Your task to perform on an android device: Open Chrome and go to settings Image 0: 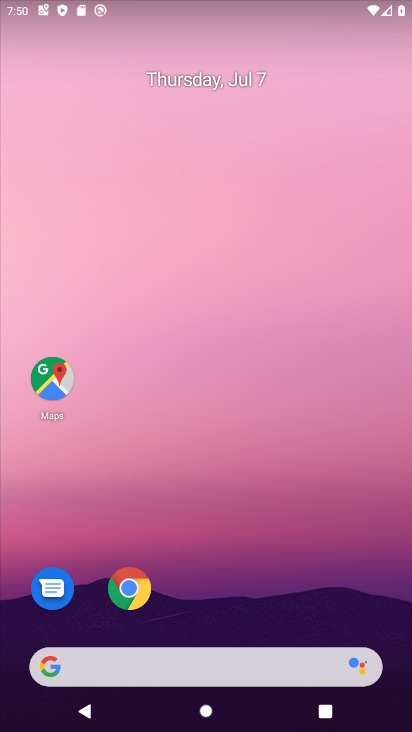
Step 0: drag from (194, 605) to (196, 224)
Your task to perform on an android device: Open Chrome and go to settings Image 1: 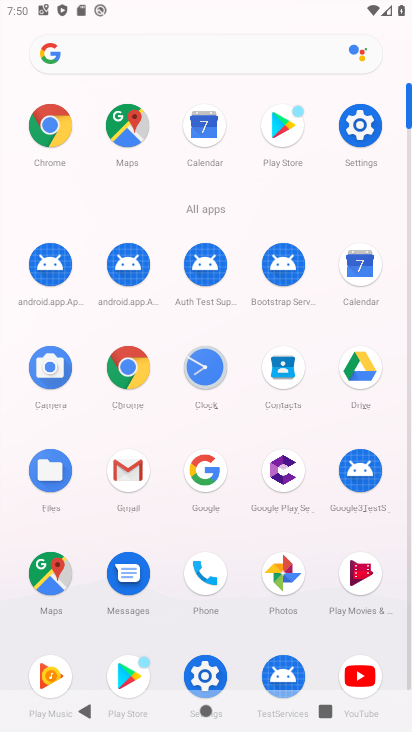
Step 1: click (360, 121)
Your task to perform on an android device: Open Chrome and go to settings Image 2: 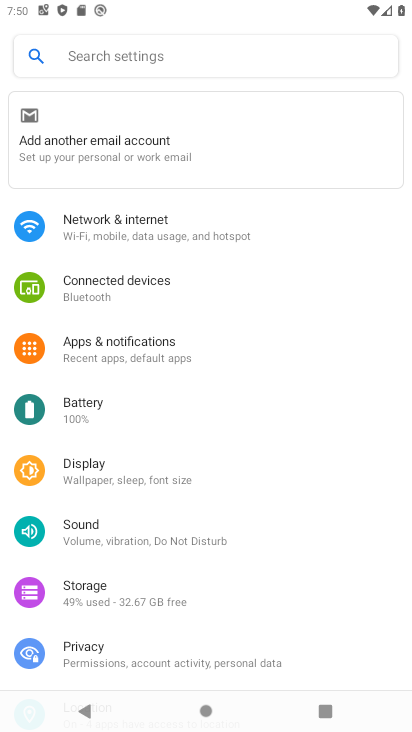
Step 2: drag from (190, 492) to (199, 213)
Your task to perform on an android device: Open Chrome and go to settings Image 3: 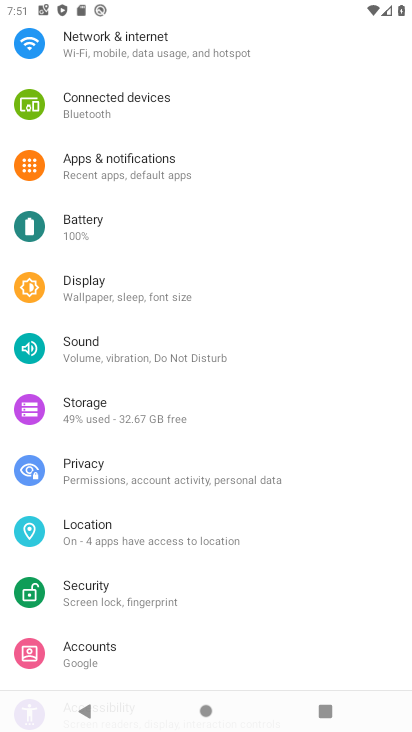
Step 3: drag from (249, 297) to (296, 134)
Your task to perform on an android device: Open Chrome and go to settings Image 4: 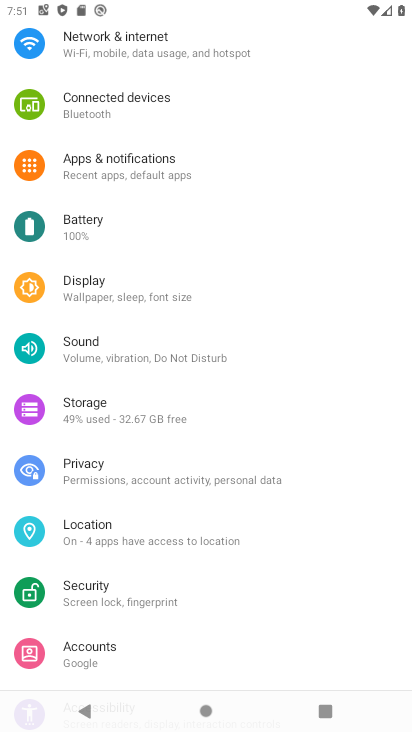
Step 4: drag from (266, 472) to (266, 180)
Your task to perform on an android device: Open Chrome and go to settings Image 5: 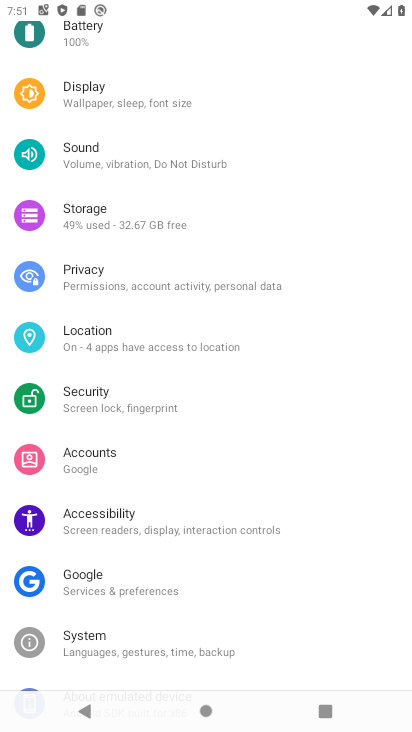
Step 5: press home button
Your task to perform on an android device: Open Chrome and go to settings Image 6: 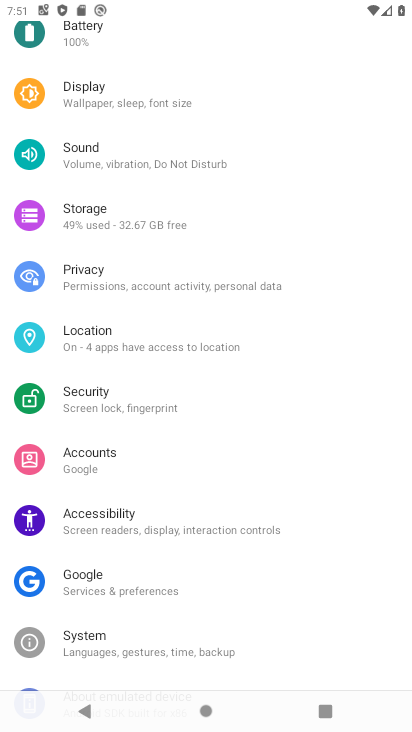
Step 6: press home button
Your task to perform on an android device: Open Chrome and go to settings Image 7: 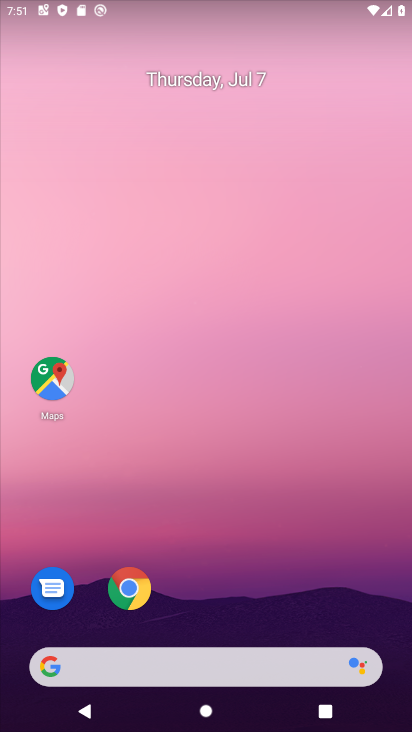
Step 7: drag from (123, 605) to (187, 362)
Your task to perform on an android device: Open Chrome and go to settings Image 8: 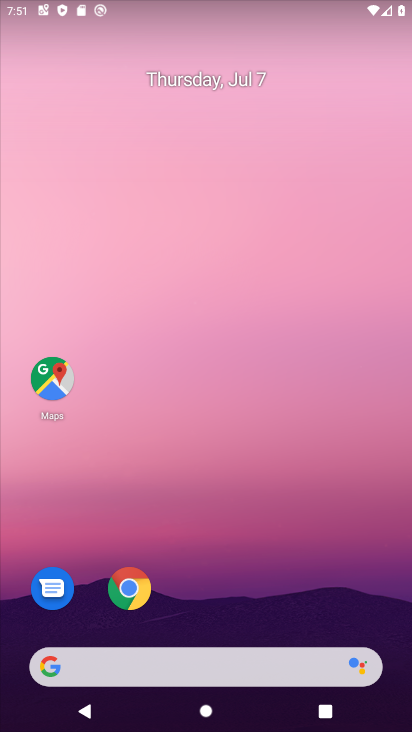
Step 8: drag from (202, 545) to (176, 215)
Your task to perform on an android device: Open Chrome and go to settings Image 9: 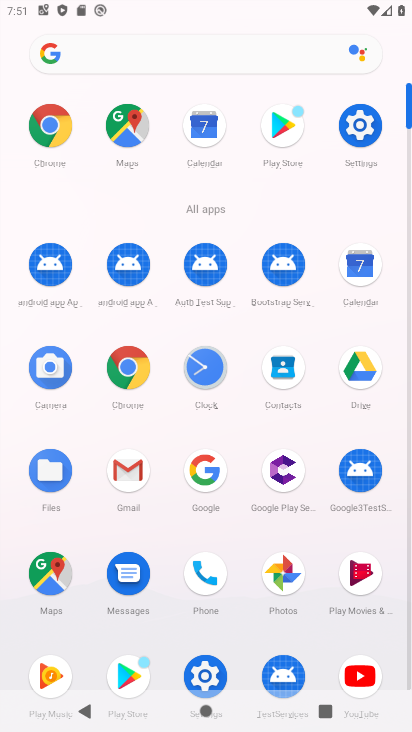
Step 9: click (50, 118)
Your task to perform on an android device: Open Chrome and go to settings Image 10: 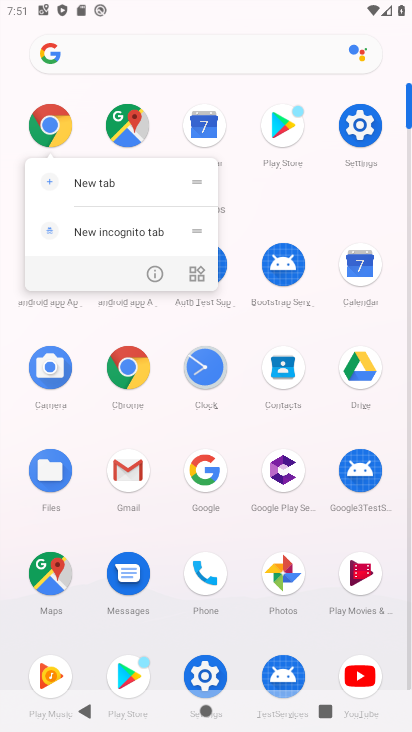
Step 10: click (151, 279)
Your task to perform on an android device: Open Chrome and go to settings Image 11: 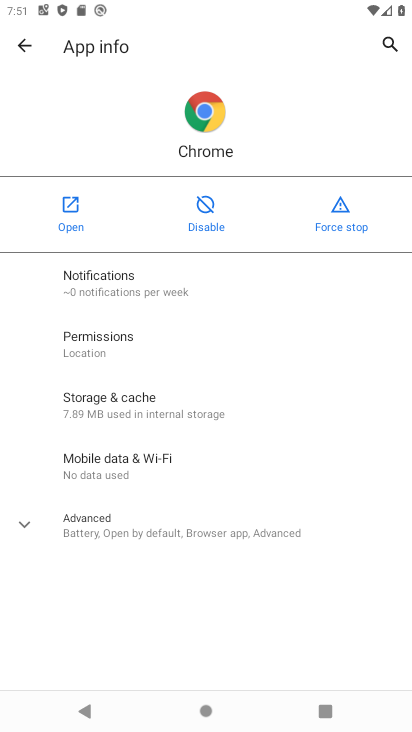
Step 11: click (71, 221)
Your task to perform on an android device: Open Chrome and go to settings Image 12: 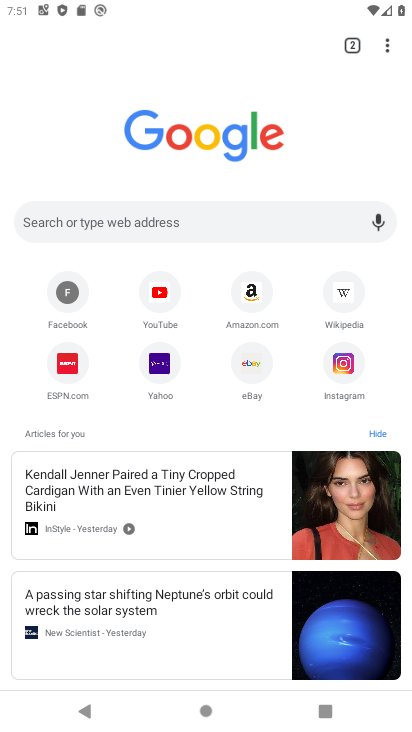
Step 12: drag from (179, 578) to (246, 361)
Your task to perform on an android device: Open Chrome and go to settings Image 13: 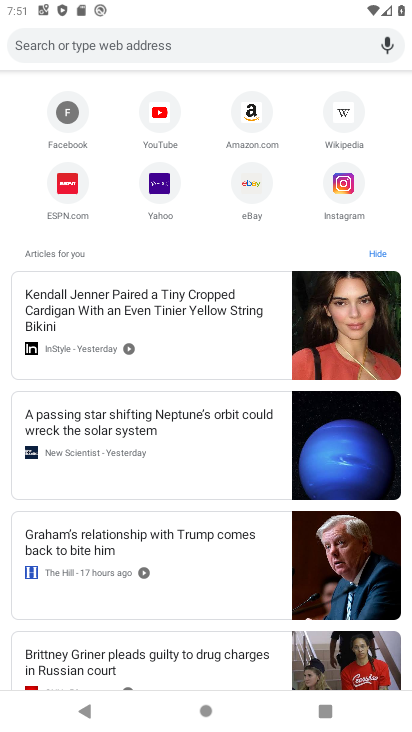
Step 13: drag from (233, 280) to (245, 724)
Your task to perform on an android device: Open Chrome and go to settings Image 14: 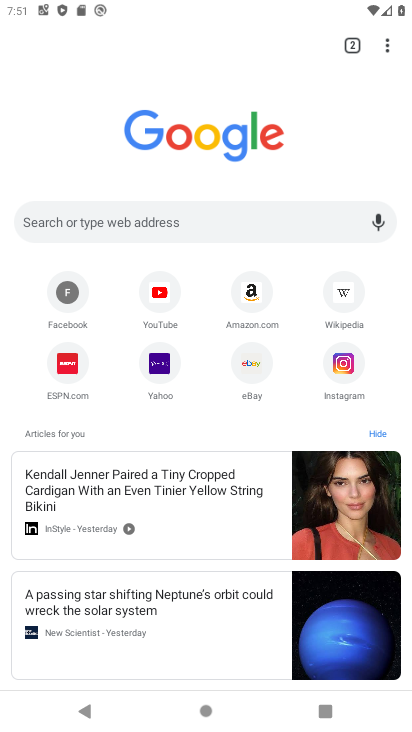
Step 14: click (390, 39)
Your task to perform on an android device: Open Chrome and go to settings Image 15: 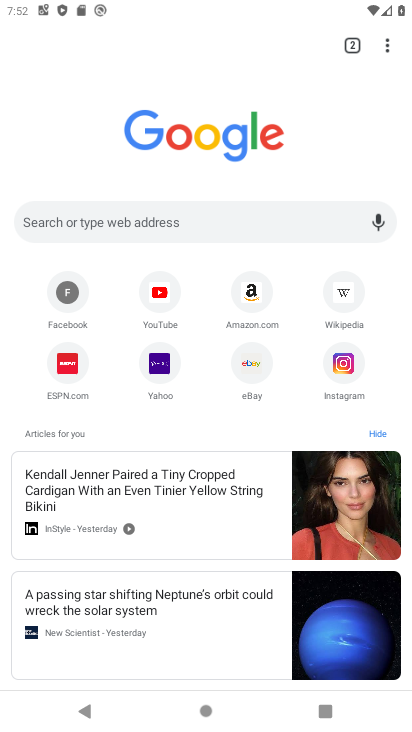
Step 15: click (383, 43)
Your task to perform on an android device: Open Chrome and go to settings Image 16: 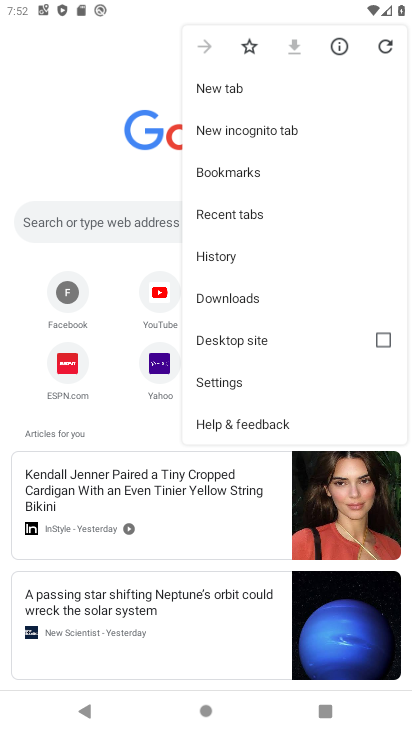
Step 16: click (272, 386)
Your task to perform on an android device: Open Chrome and go to settings Image 17: 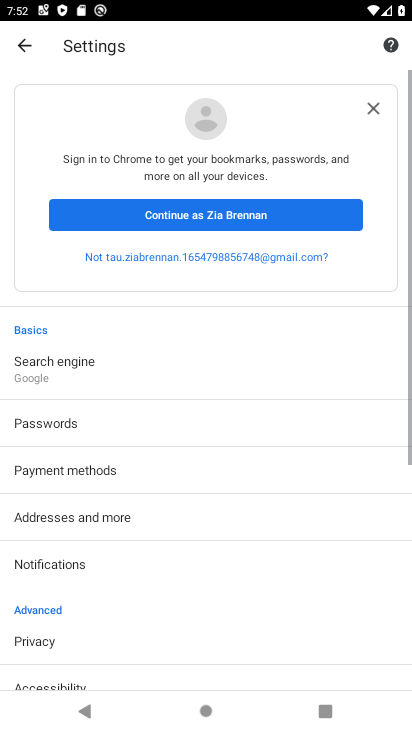
Step 17: task complete